Your task to perform on an android device: turn off wifi Image 0: 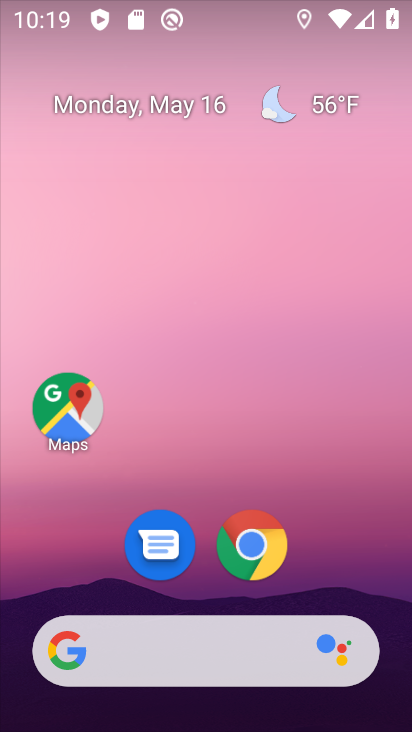
Step 0: drag from (208, 600) to (163, 93)
Your task to perform on an android device: turn off wifi Image 1: 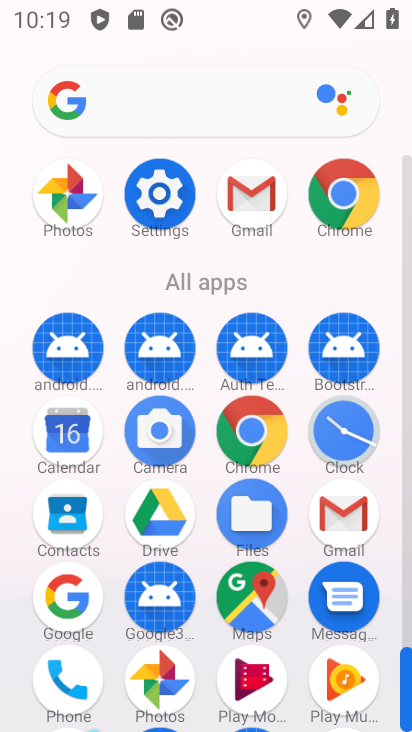
Step 1: click (150, 224)
Your task to perform on an android device: turn off wifi Image 2: 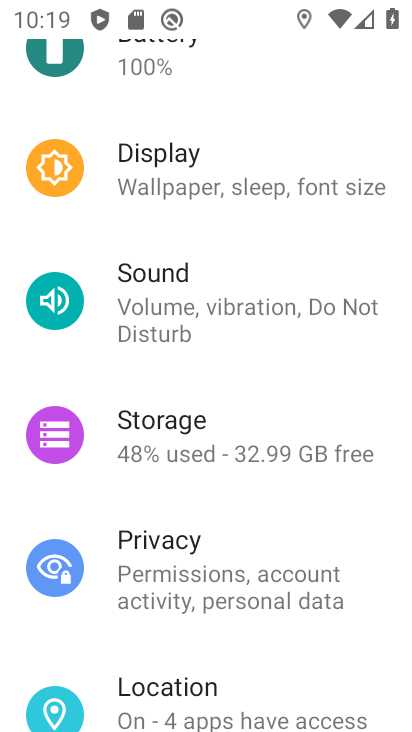
Step 2: drag from (164, 230) to (191, 654)
Your task to perform on an android device: turn off wifi Image 3: 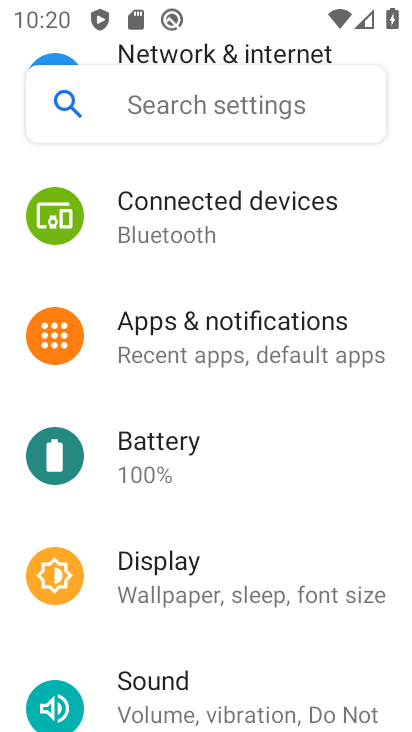
Step 3: drag from (256, 204) to (216, 564)
Your task to perform on an android device: turn off wifi Image 4: 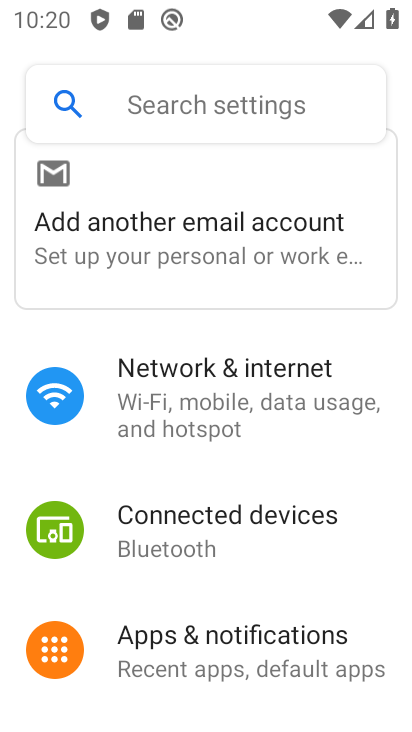
Step 4: click (206, 340)
Your task to perform on an android device: turn off wifi Image 5: 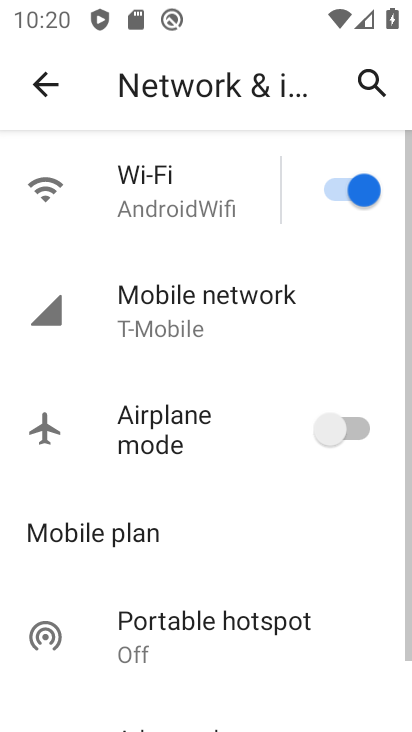
Step 5: click (346, 191)
Your task to perform on an android device: turn off wifi Image 6: 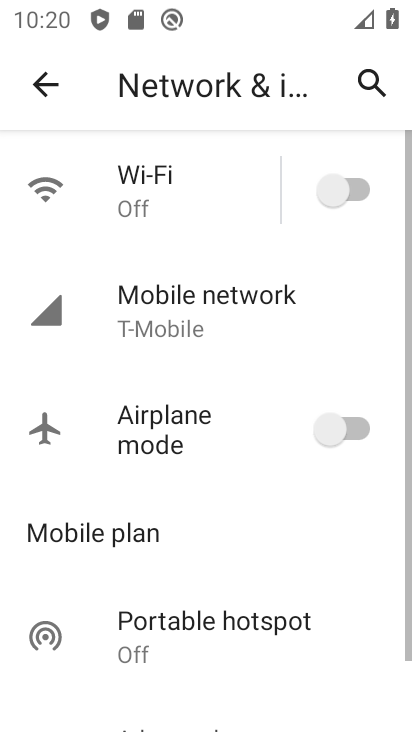
Step 6: task complete